Your task to perform on an android device: read, delete, or share a saved page in the chrome app Image 0: 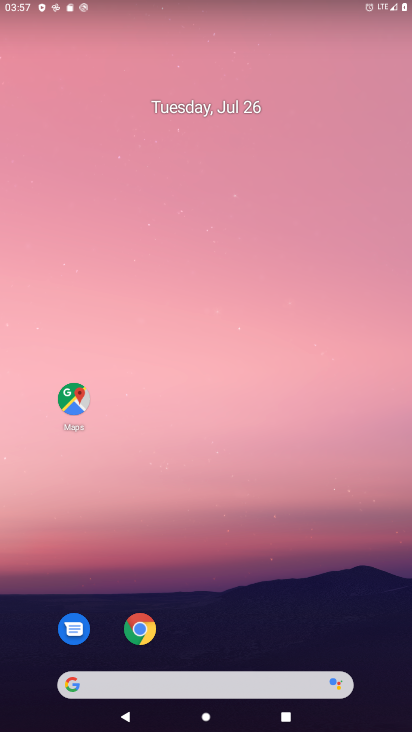
Step 0: drag from (278, 606) to (322, 29)
Your task to perform on an android device: read, delete, or share a saved page in the chrome app Image 1: 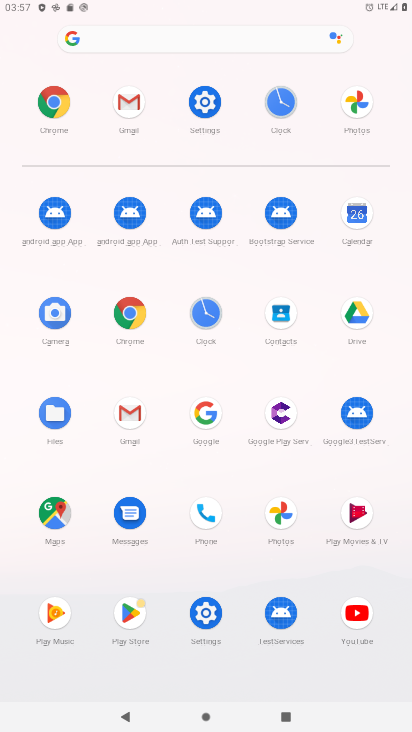
Step 1: click (130, 316)
Your task to perform on an android device: read, delete, or share a saved page in the chrome app Image 2: 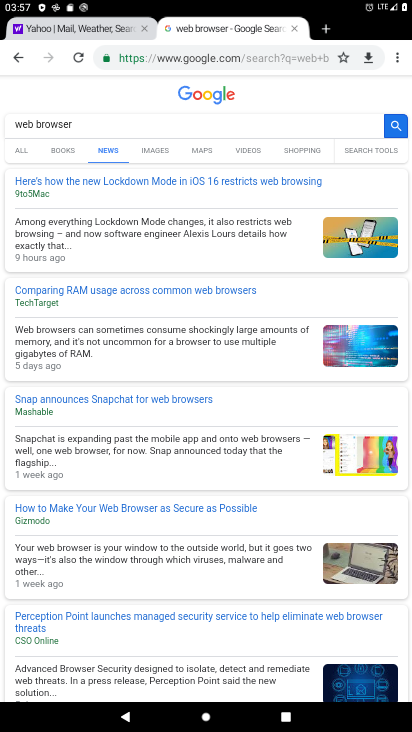
Step 2: drag from (245, 394) to (264, 141)
Your task to perform on an android device: read, delete, or share a saved page in the chrome app Image 3: 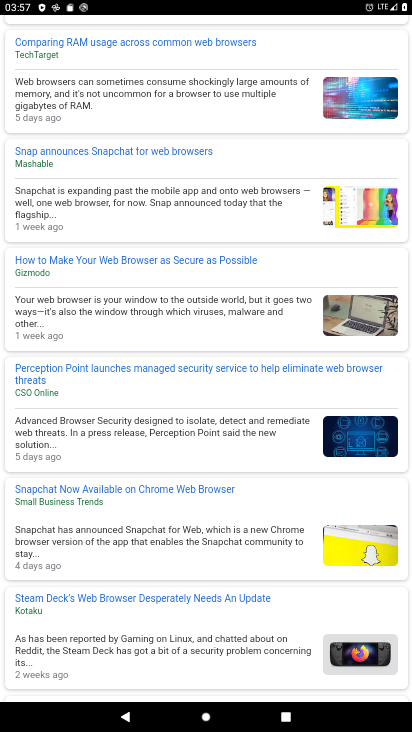
Step 3: drag from (274, 130) to (211, 646)
Your task to perform on an android device: read, delete, or share a saved page in the chrome app Image 4: 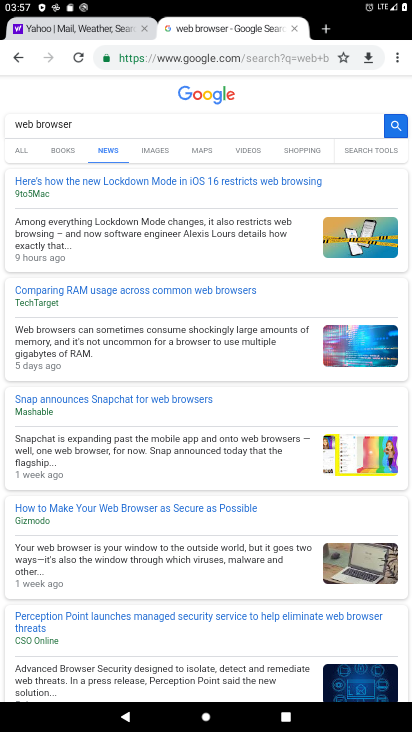
Step 4: click (345, 54)
Your task to perform on an android device: read, delete, or share a saved page in the chrome app Image 5: 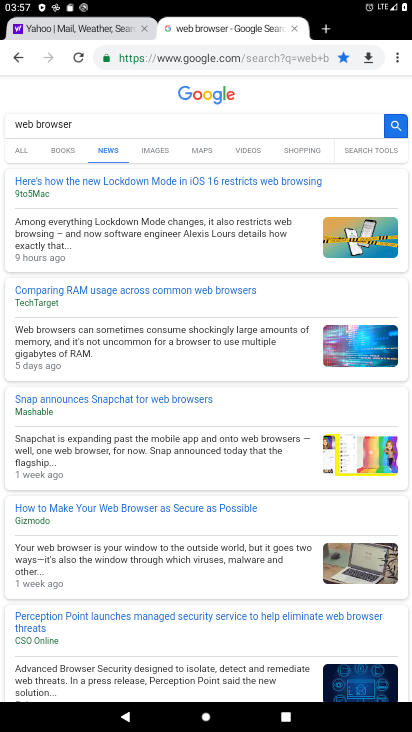
Step 5: click (339, 53)
Your task to perform on an android device: read, delete, or share a saved page in the chrome app Image 6: 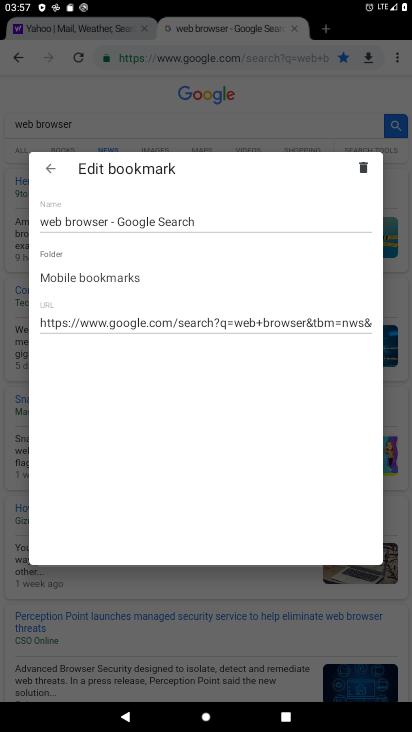
Step 6: click (365, 160)
Your task to perform on an android device: read, delete, or share a saved page in the chrome app Image 7: 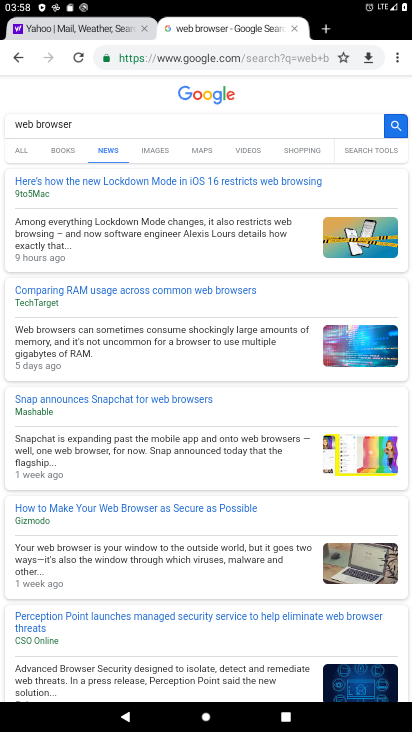
Step 7: task complete